Your task to perform on an android device: Search for good Italian restaurants Image 0: 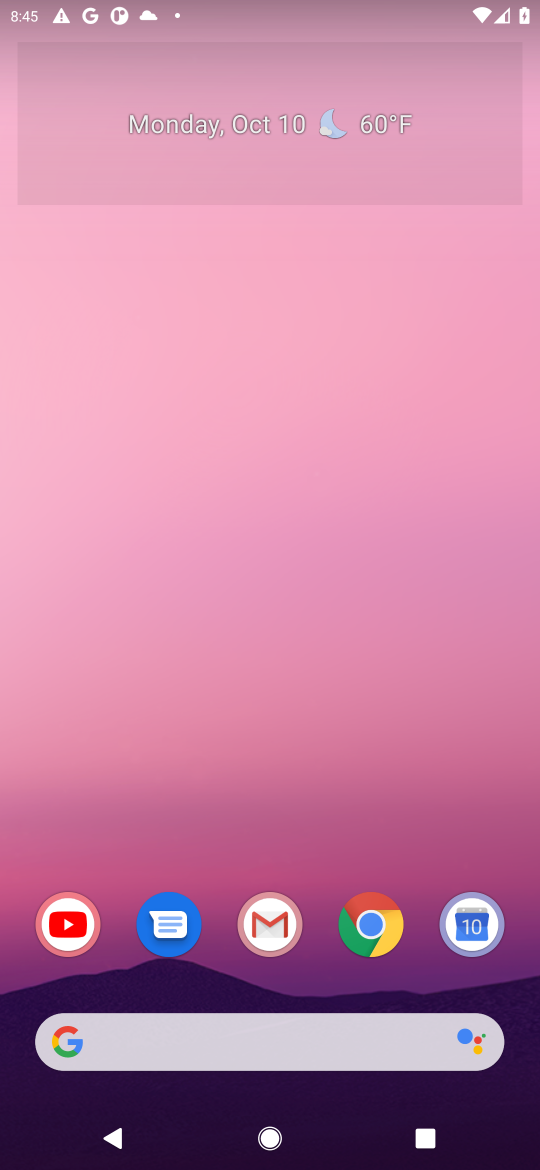
Step 0: drag from (251, 975) to (342, 142)
Your task to perform on an android device: Search for good Italian restaurants Image 1: 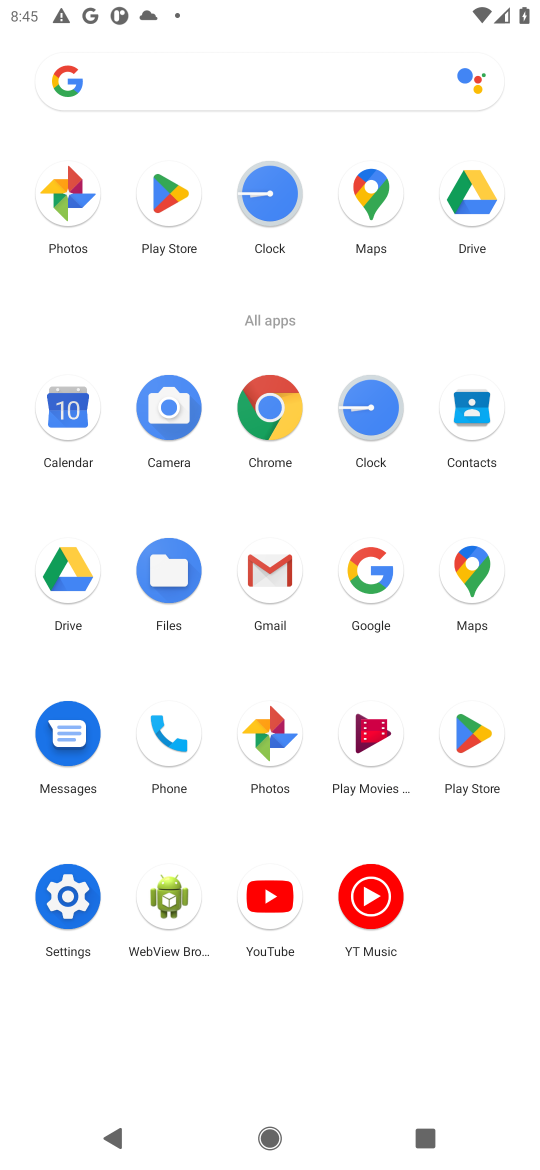
Step 1: click (369, 592)
Your task to perform on an android device: Search for good Italian restaurants Image 2: 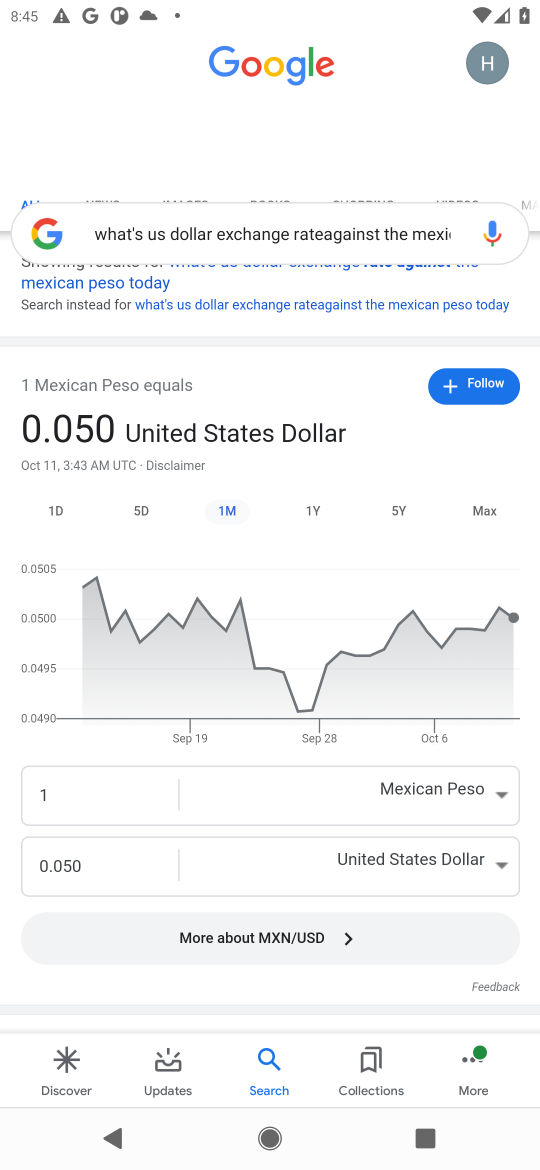
Step 2: click (350, 233)
Your task to perform on an android device: Search for good Italian restaurants Image 3: 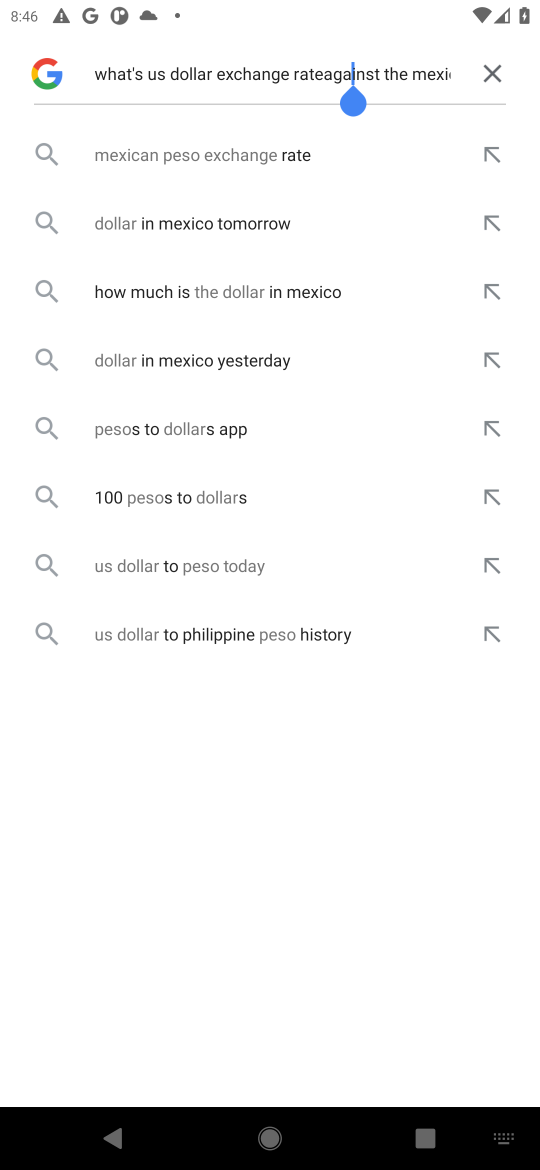
Step 3: click (494, 77)
Your task to perform on an android device: Search for good Italian restaurants Image 4: 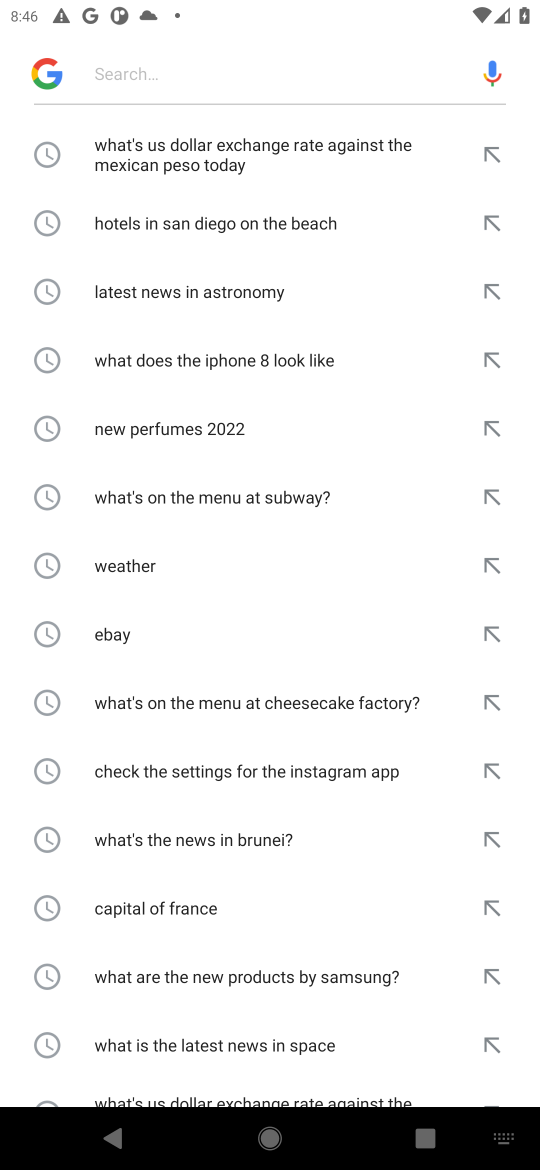
Step 4: type "good Italian restaurants"
Your task to perform on an android device: Search for good Italian restaurants Image 5: 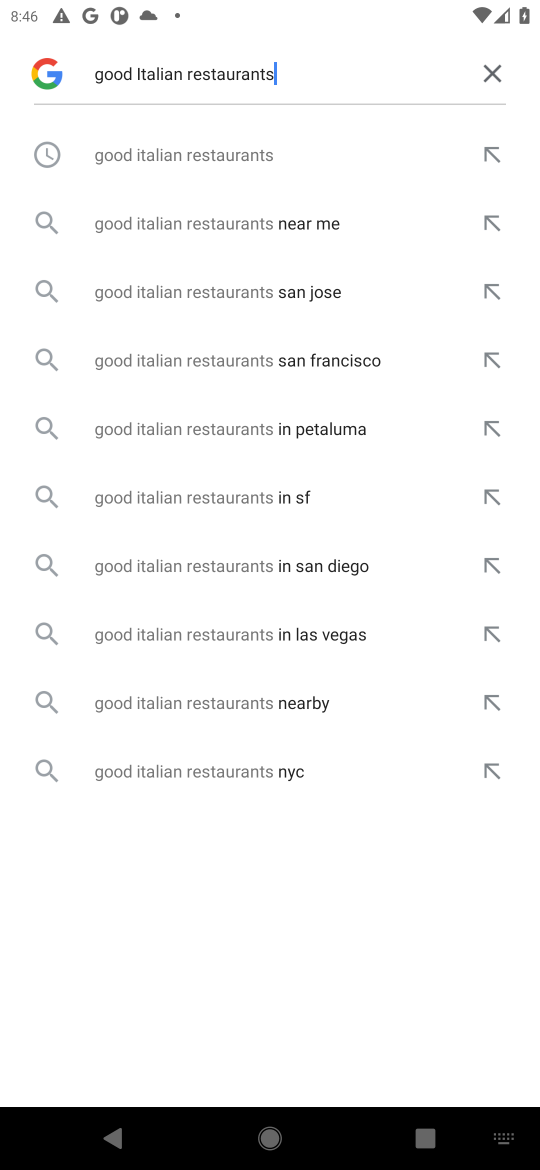
Step 5: click (281, 156)
Your task to perform on an android device: Search for good Italian restaurants Image 6: 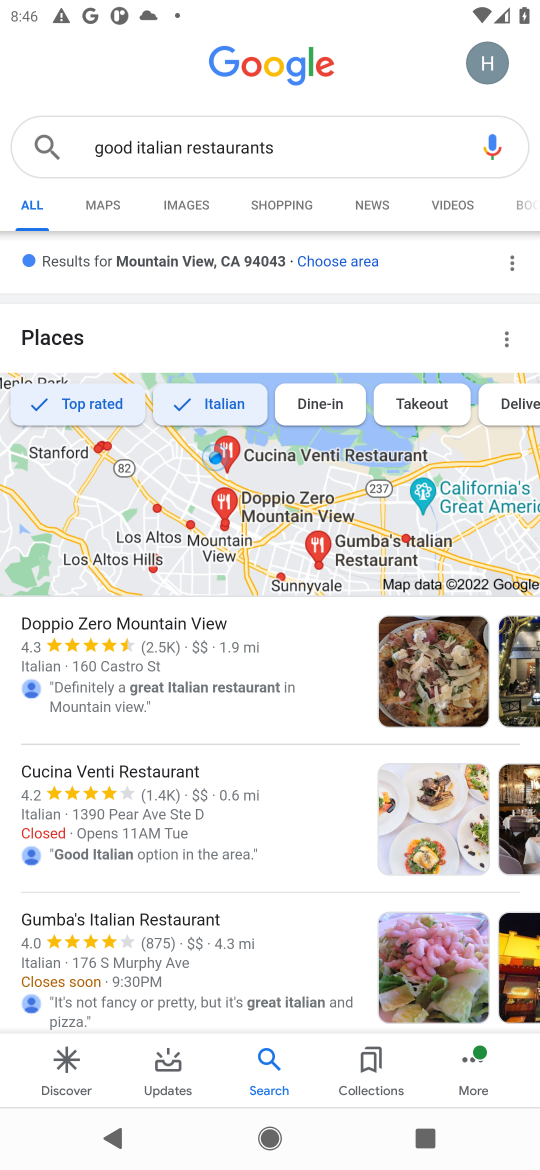
Step 6: task complete